Your task to perform on an android device: Search for seafood restaurants on Google Maps Image 0: 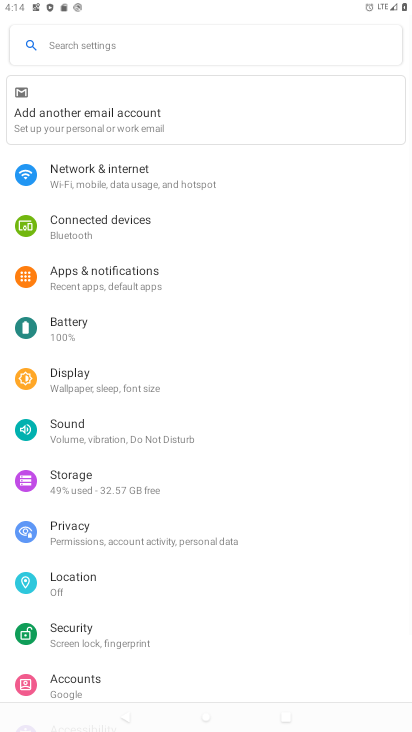
Step 0: press home button
Your task to perform on an android device: Search for seafood restaurants on Google Maps Image 1: 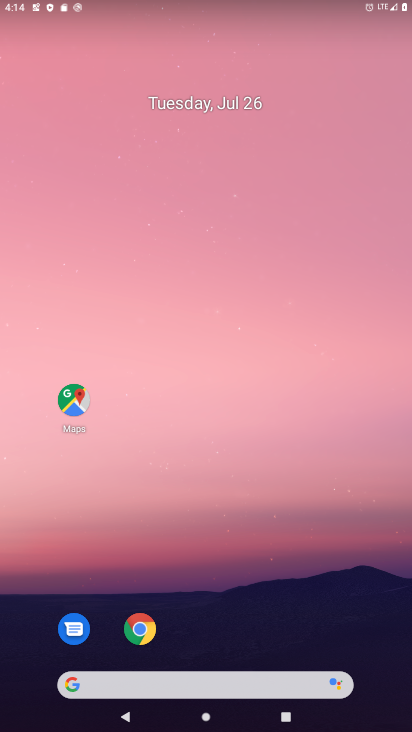
Step 1: drag from (232, 660) to (236, 280)
Your task to perform on an android device: Search for seafood restaurants on Google Maps Image 2: 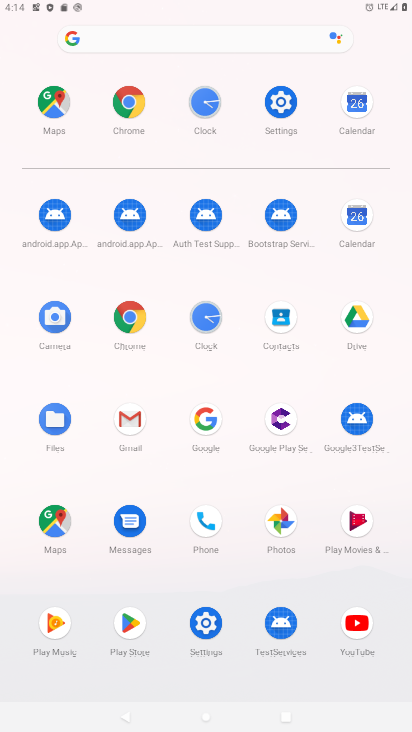
Step 2: click (65, 515)
Your task to perform on an android device: Search for seafood restaurants on Google Maps Image 3: 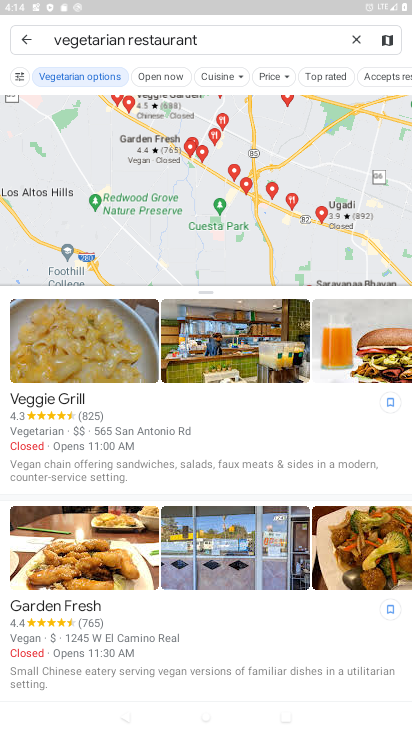
Step 3: click (358, 41)
Your task to perform on an android device: Search for seafood restaurants on Google Maps Image 4: 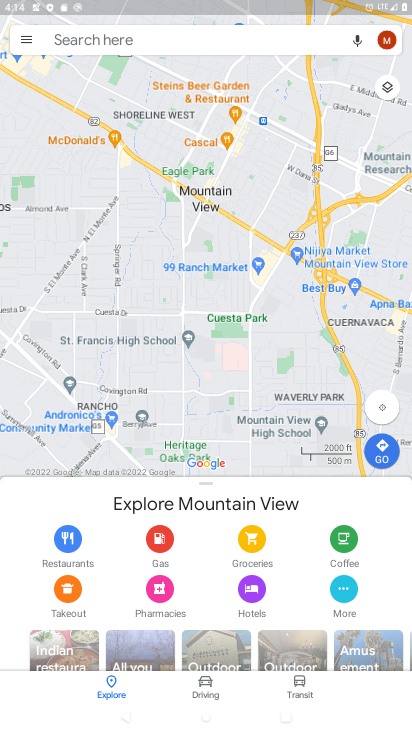
Step 4: click (220, 39)
Your task to perform on an android device: Search for seafood restaurants on Google Maps Image 5: 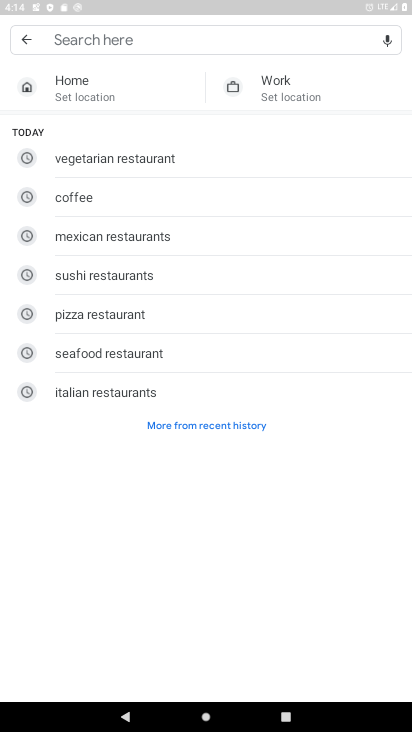
Step 5: type "seafood restaurants"
Your task to perform on an android device: Search for seafood restaurants on Google Maps Image 6: 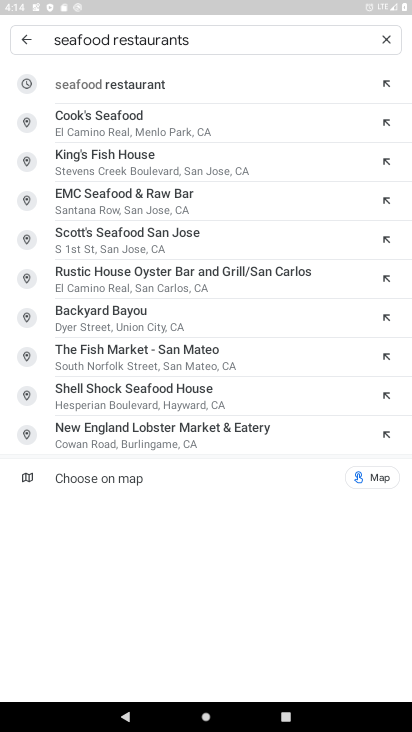
Step 6: click (135, 83)
Your task to perform on an android device: Search for seafood restaurants on Google Maps Image 7: 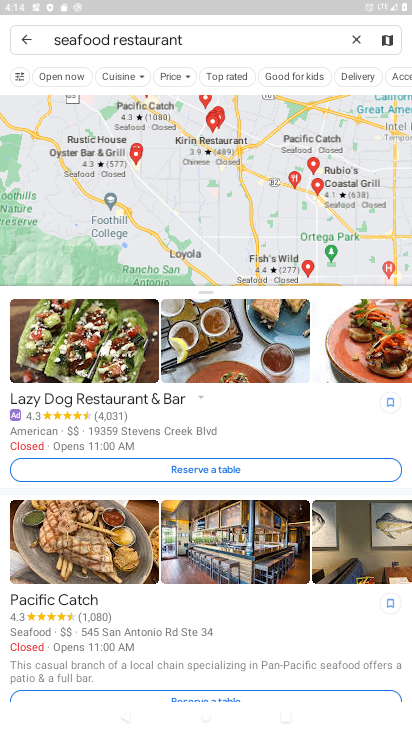
Step 7: task complete